Your task to perform on an android device: What's the weather? Image 0: 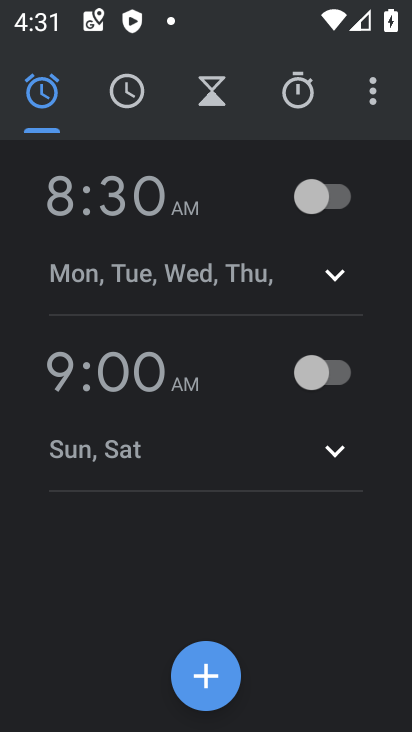
Step 0: press home button
Your task to perform on an android device: What's the weather? Image 1: 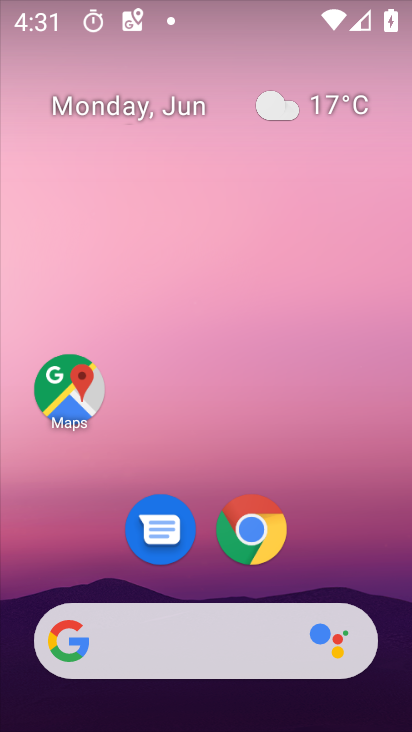
Step 1: drag from (304, 555) to (272, 75)
Your task to perform on an android device: What's the weather? Image 2: 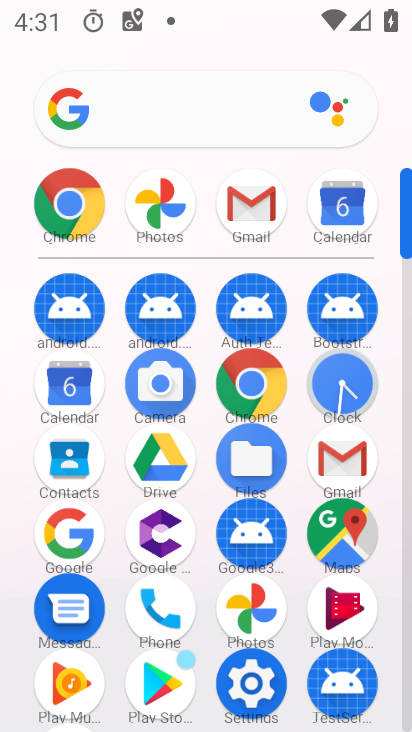
Step 2: click (63, 530)
Your task to perform on an android device: What's the weather? Image 3: 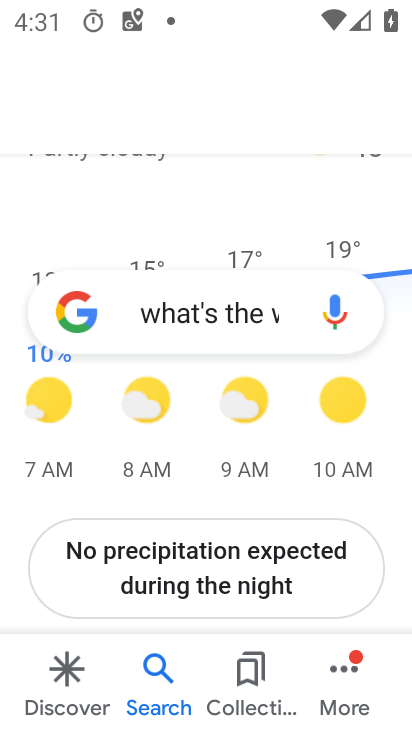
Step 3: click (232, 303)
Your task to perform on an android device: What's the weather? Image 4: 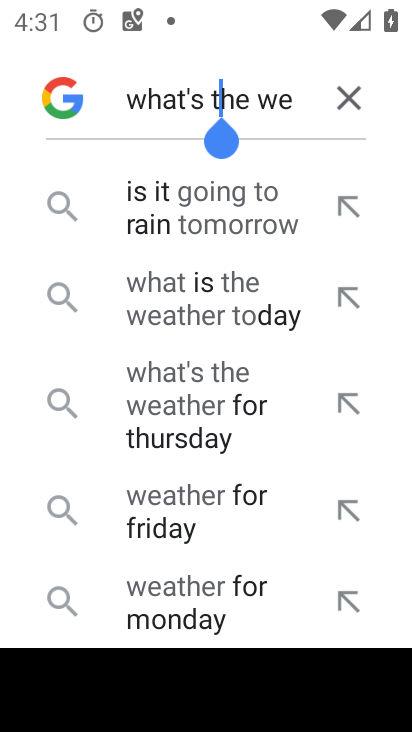
Step 4: click (347, 97)
Your task to perform on an android device: What's the weather? Image 5: 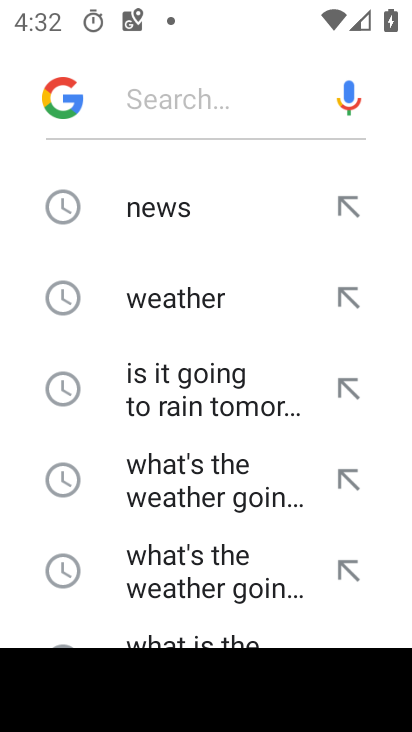
Step 5: click (177, 293)
Your task to perform on an android device: What's the weather? Image 6: 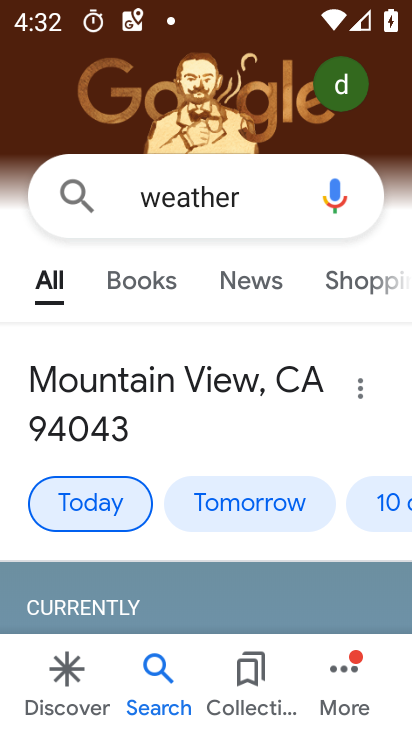
Step 6: task complete